Your task to perform on an android device: all mails in gmail Image 0: 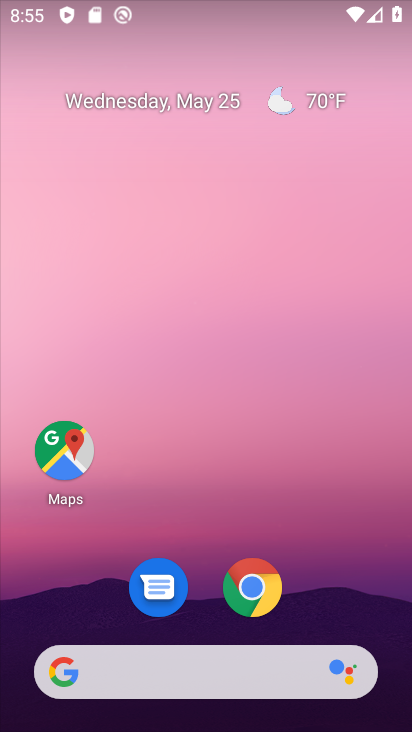
Step 0: drag from (204, 586) to (288, 200)
Your task to perform on an android device: all mails in gmail Image 1: 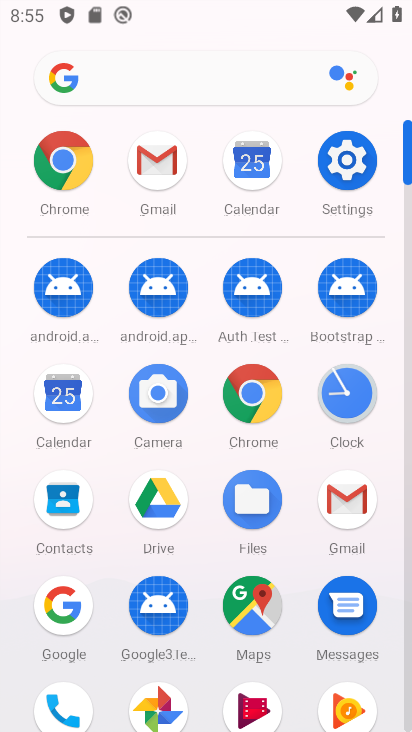
Step 1: click (348, 499)
Your task to perform on an android device: all mails in gmail Image 2: 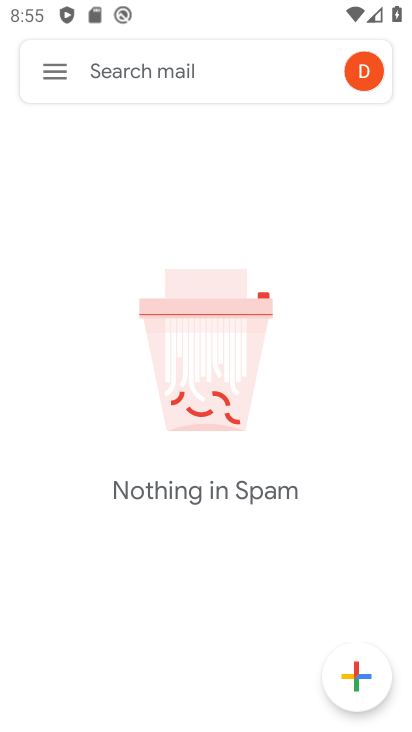
Step 2: click (43, 66)
Your task to perform on an android device: all mails in gmail Image 3: 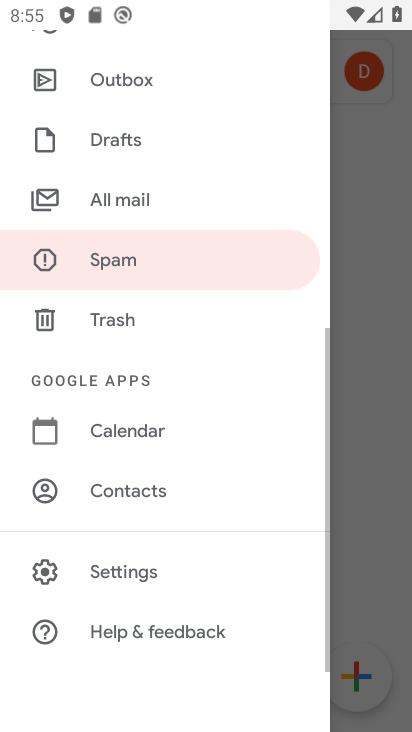
Step 3: click (142, 189)
Your task to perform on an android device: all mails in gmail Image 4: 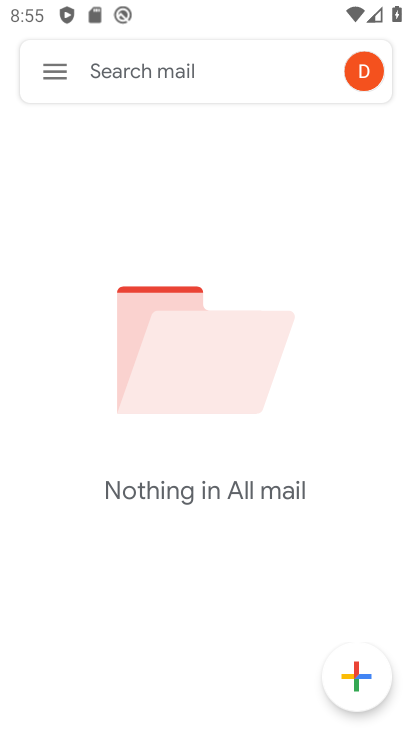
Step 4: task complete